Your task to perform on an android device: Go to Yahoo.com Image 0: 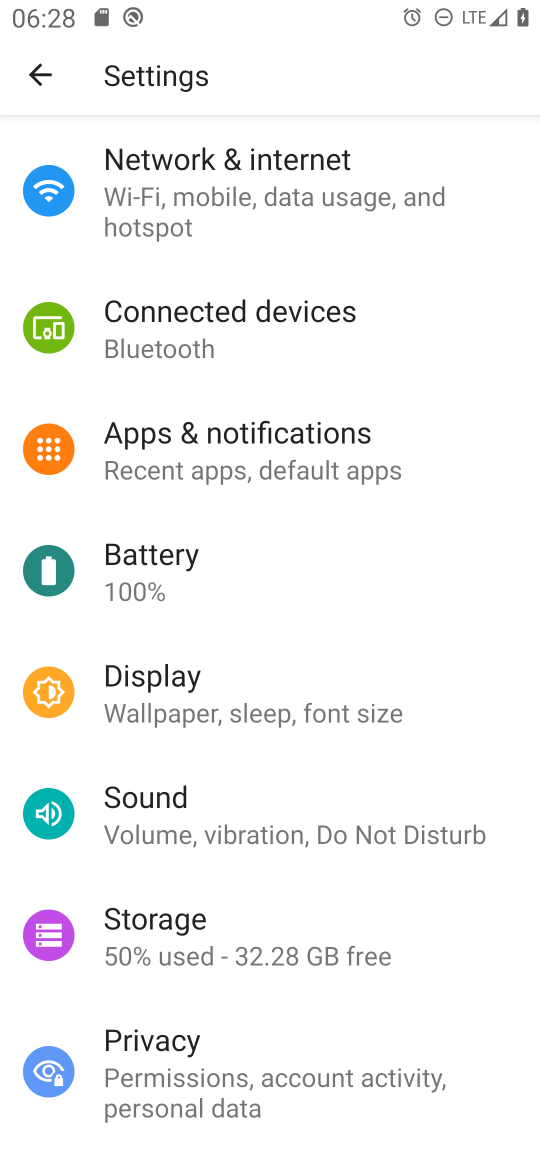
Step 0: press home button
Your task to perform on an android device: Go to Yahoo.com Image 1: 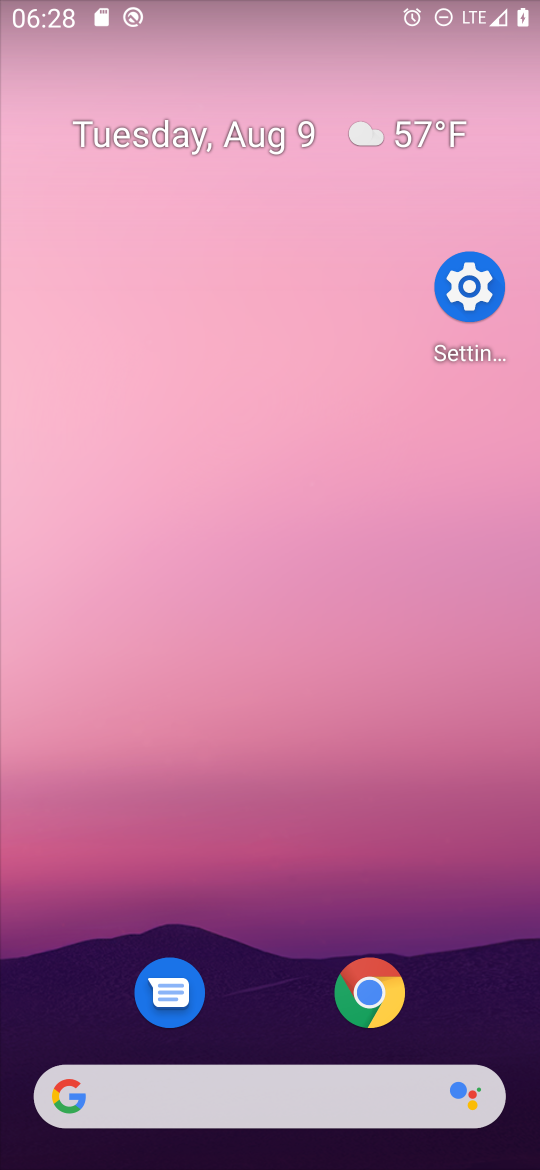
Step 1: drag from (307, 1050) to (256, 174)
Your task to perform on an android device: Go to Yahoo.com Image 2: 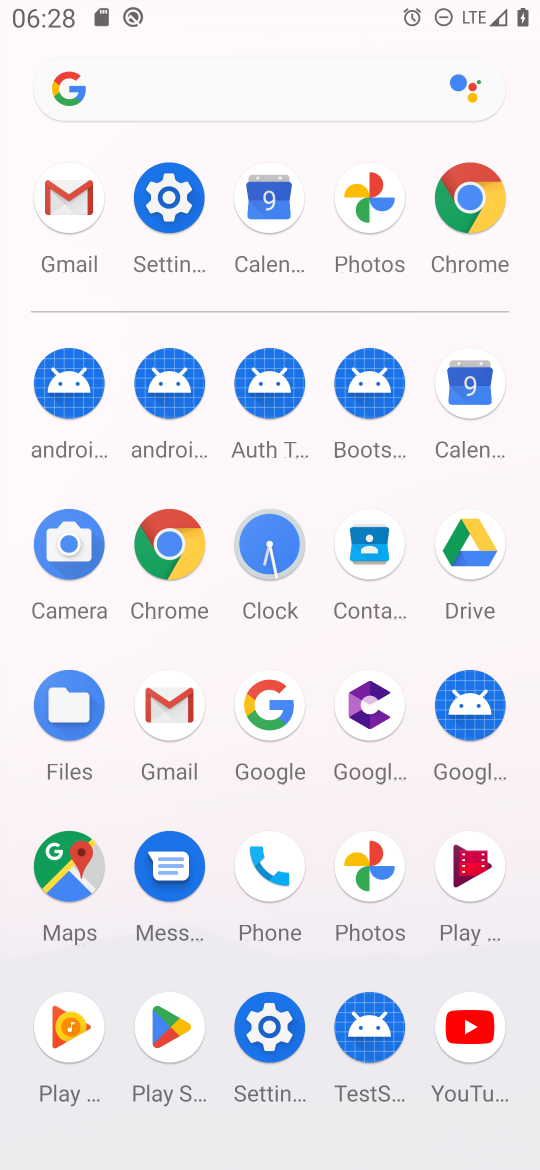
Step 2: click (171, 525)
Your task to perform on an android device: Go to Yahoo.com Image 3: 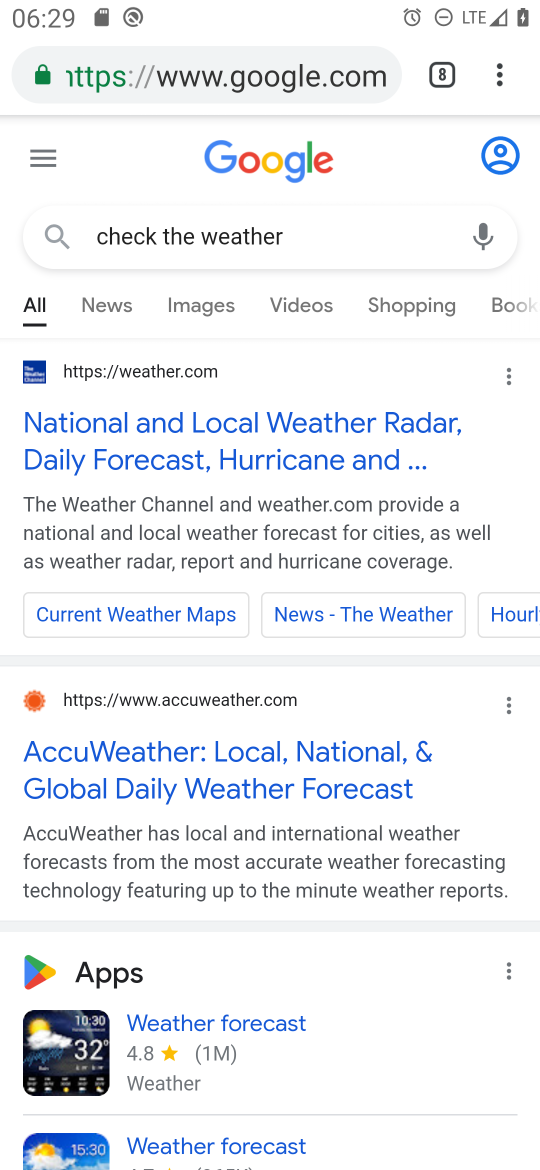
Step 3: click (502, 63)
Your task to perform on an android device: Go to Yahoo.com Image 4: 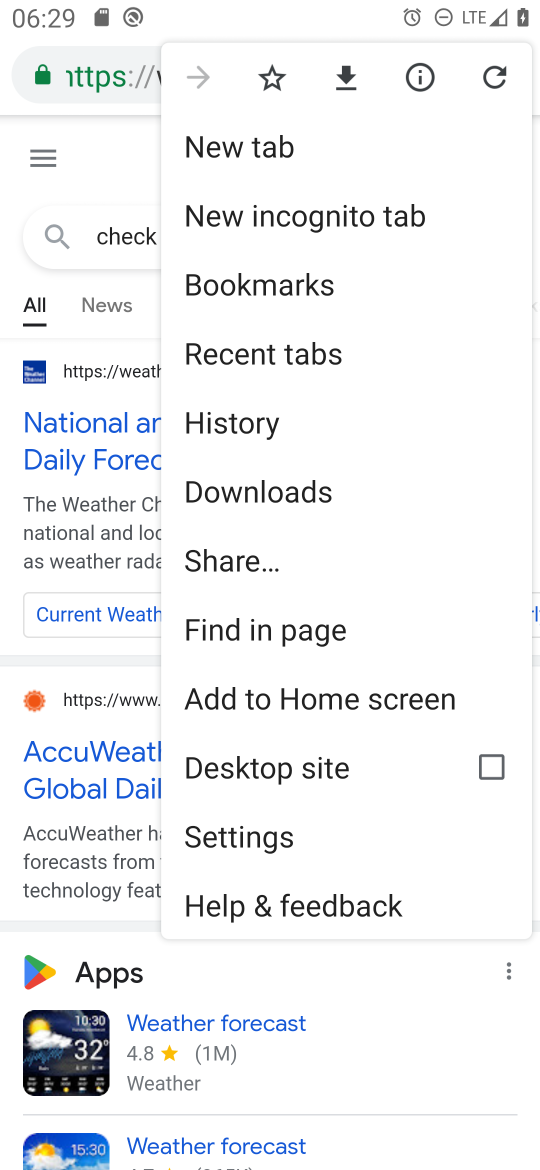
Step 4: click (314, 140)
Your task to perform on an android device: Go to Yahoo.com Image 5: 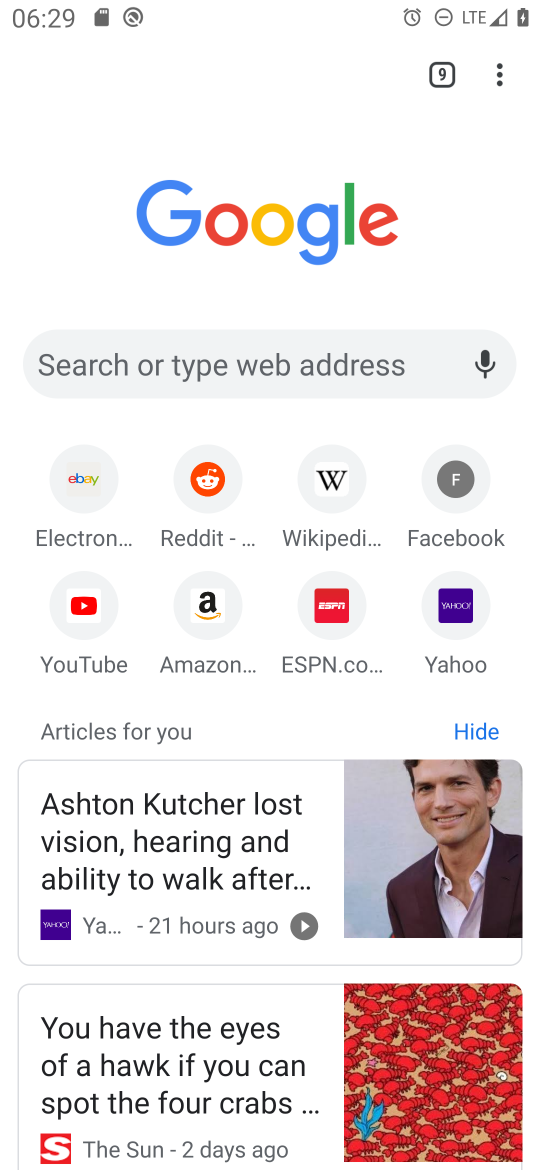
Step 5: click (474, 611)
Your task to perform on an android device: Go to Yahoo.com Image 6: 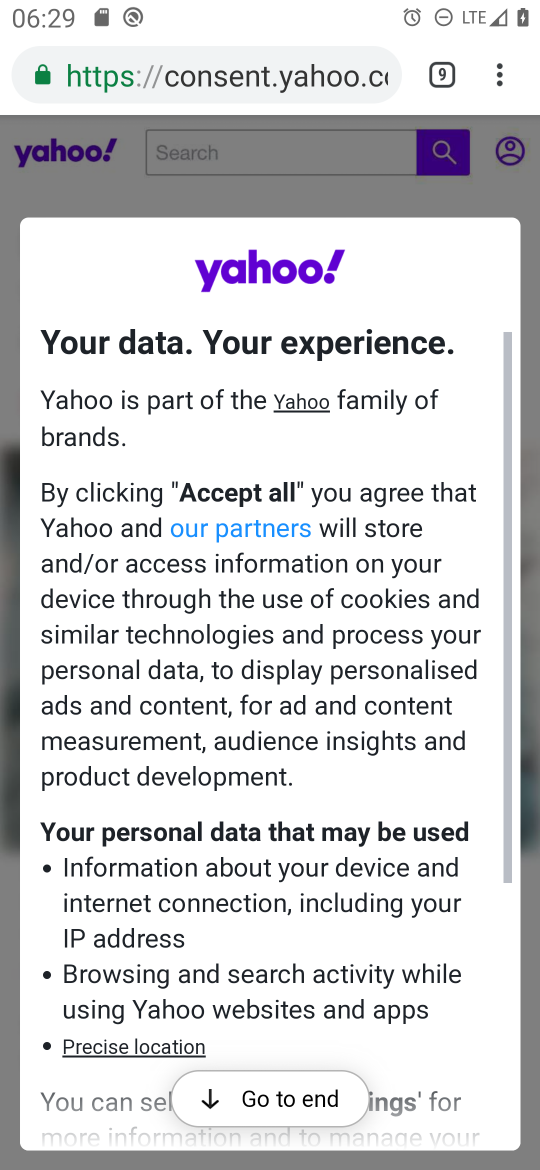
Step 6: task complete